Your task to perform on an android device: turn off sleep mode Image 0: 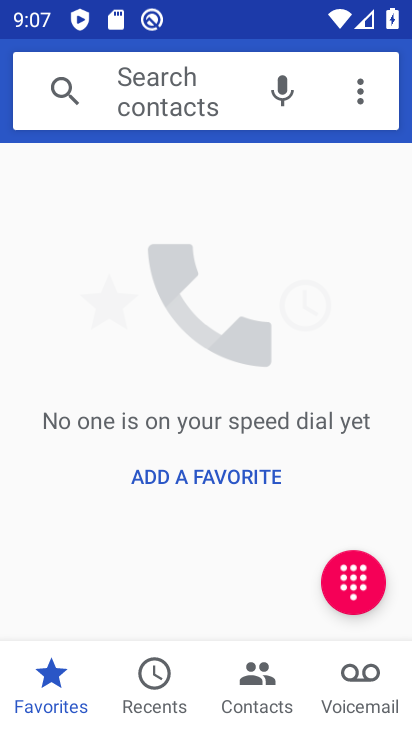
Step 0: press home button
Your task to perform on an android device: turn off sleep mode Image 1: 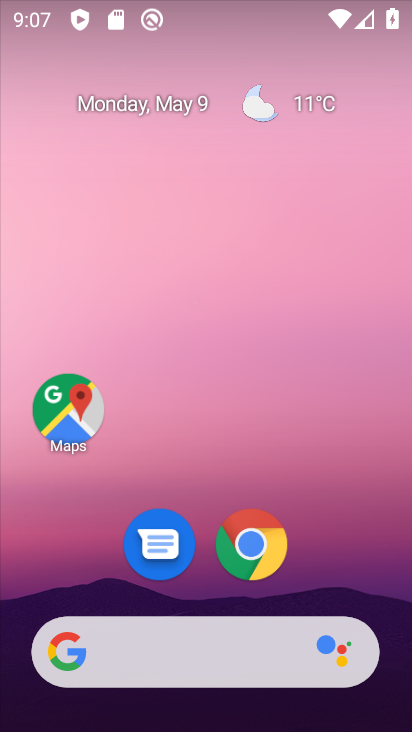
Step 1: drag from (325, 304) to (300, 164)
Your task to perform on an android device: turn off sleep mode Image 2: 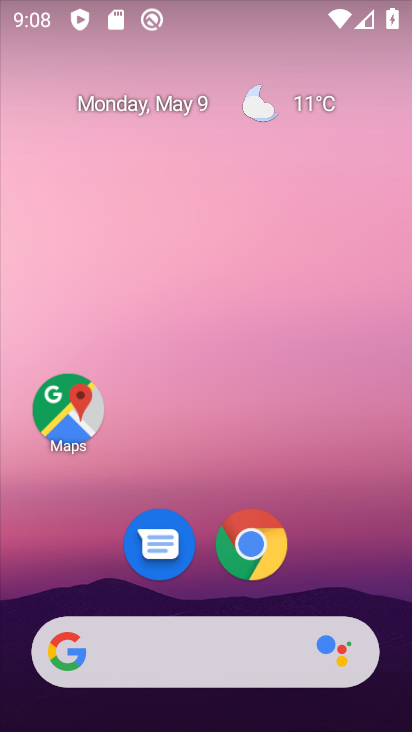
Step 2: drag from (388, 669) to (366, 137)
Your task to perform on an android device: turn off sleep mode Image 3: 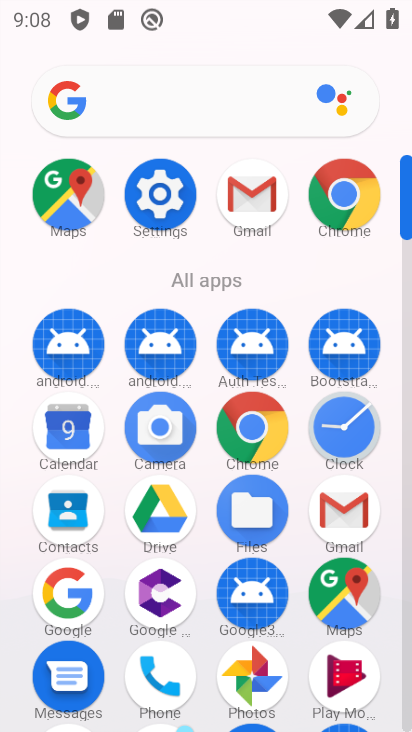
Step 3: click (168, 210)
Your task to perform on an android device: turn off sleep mode Image 4: 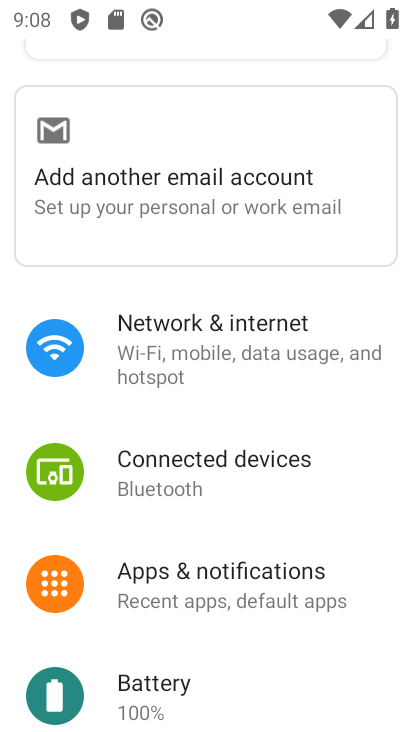
Step 4: drag from (290, 685) to (272, 367)
Your task to perform on an android device: turn off sleep mode Image 5: 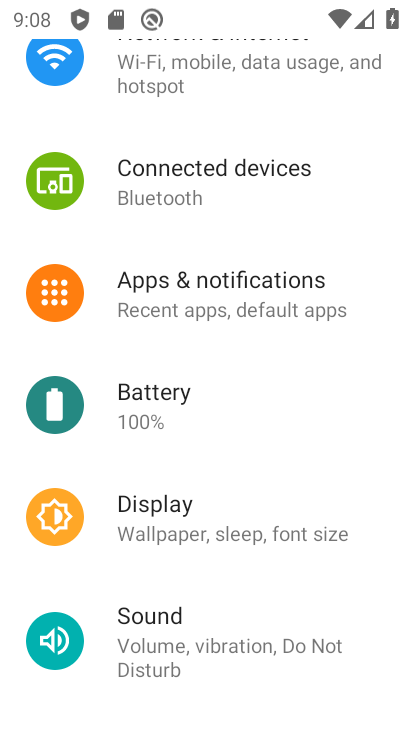
Step 5: click (138, 513)
Your task to perform on an android device: turn off sleep mode Image 6: 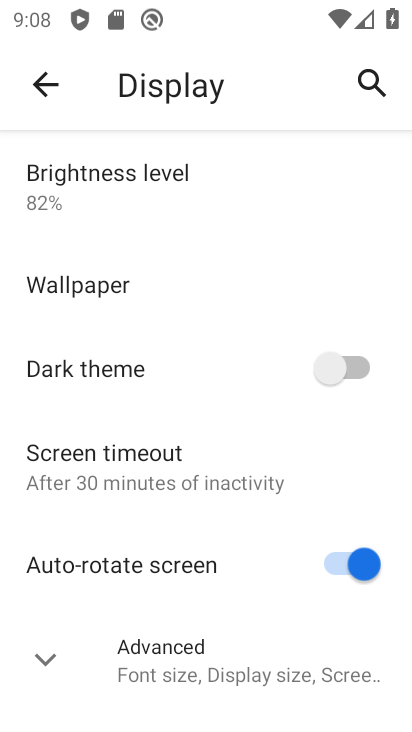
Step 6: drag from (251, 237) to (273, 548)
Your task to perform on an android device: turn off sleep mode Image 7: 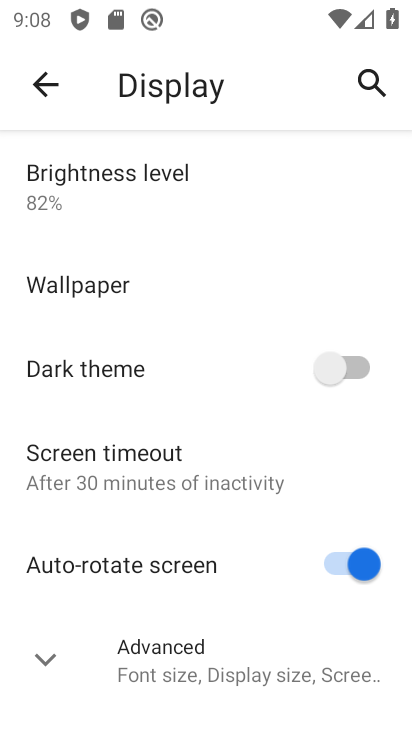
Step 7: drag from (259, 621) to (247, 320)
Your task to perform on an android device: turn off sleep mode Image 8: 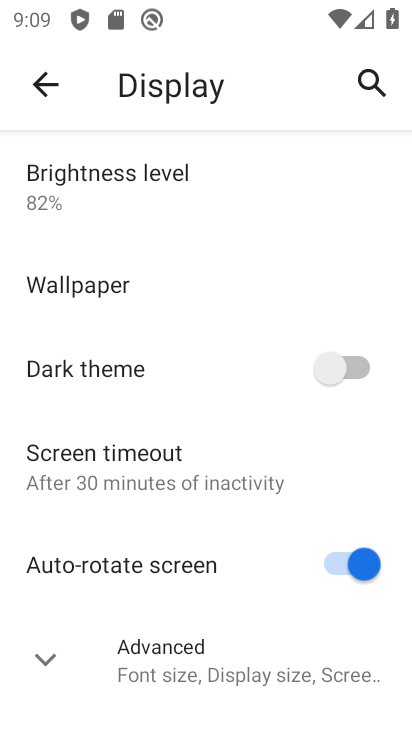
Step 8: click (121, 450)
Your task to perform on an android device: turn off sleep mode Image 9: 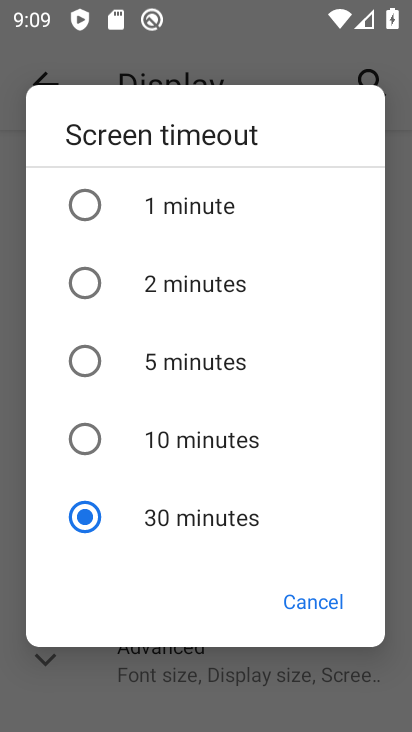
Step 9: task complete